Your task to perform on an android device: What's the news about the US president? Image 0: 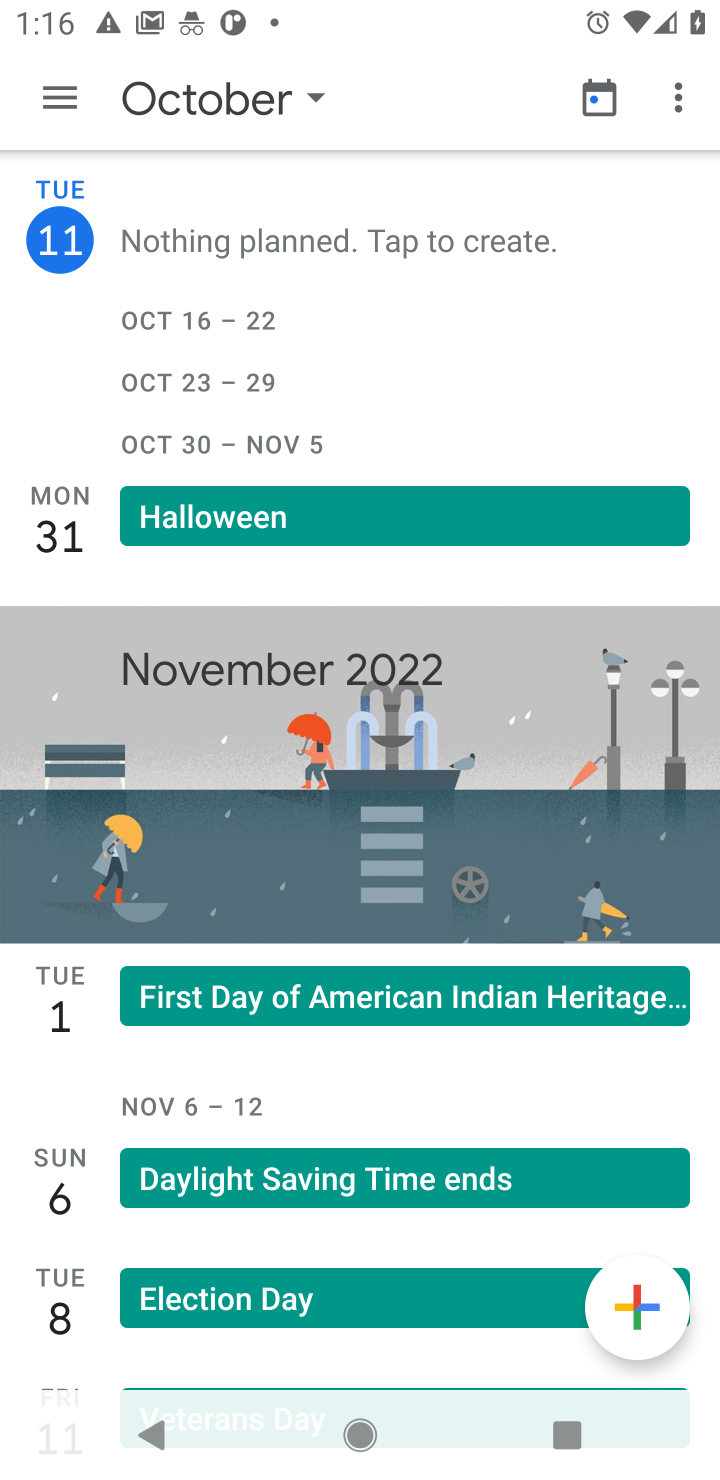
Step 0: press home button
Your task to perform on an android device: What's the news about the US president? Image 1: 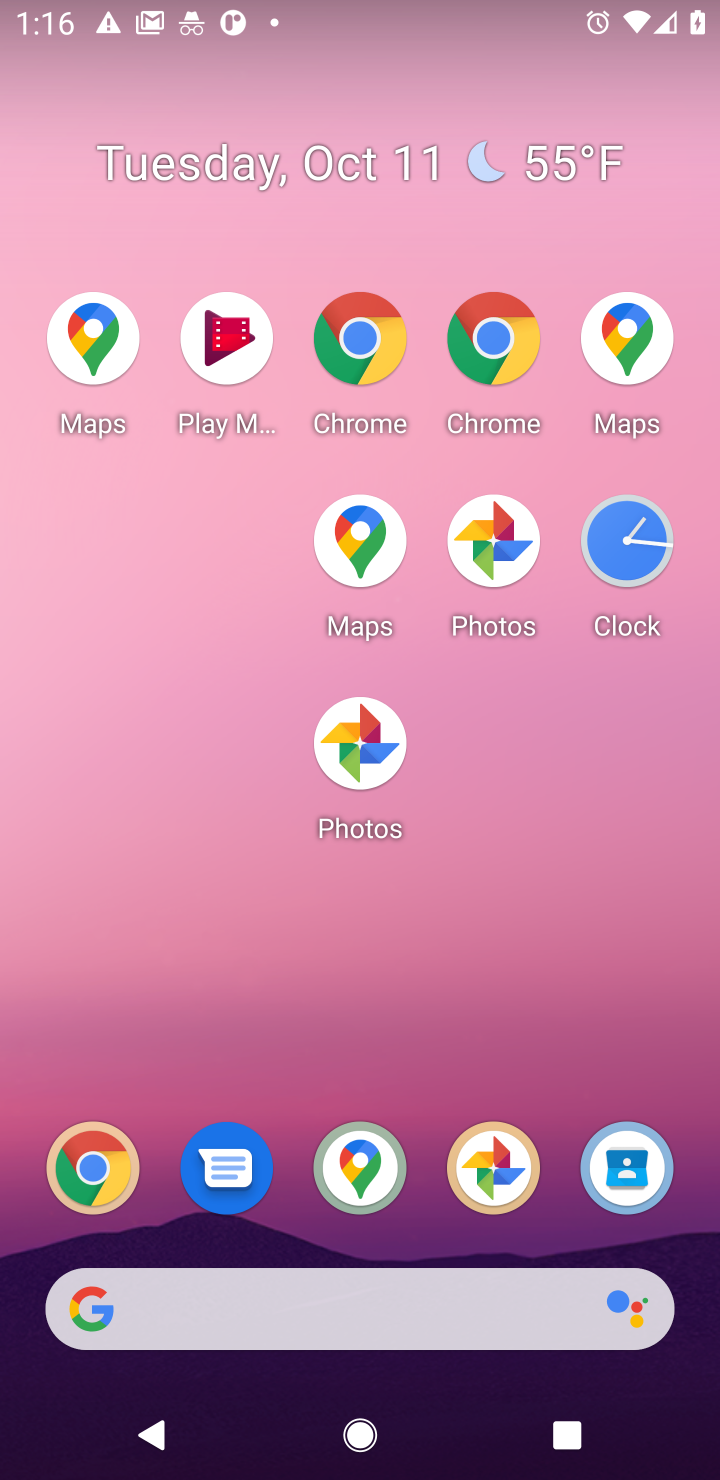
Step 1: drag from (301, 1114) to (680, 52)
Your task to perform on an android device: What's the news about the US president? Image 2: 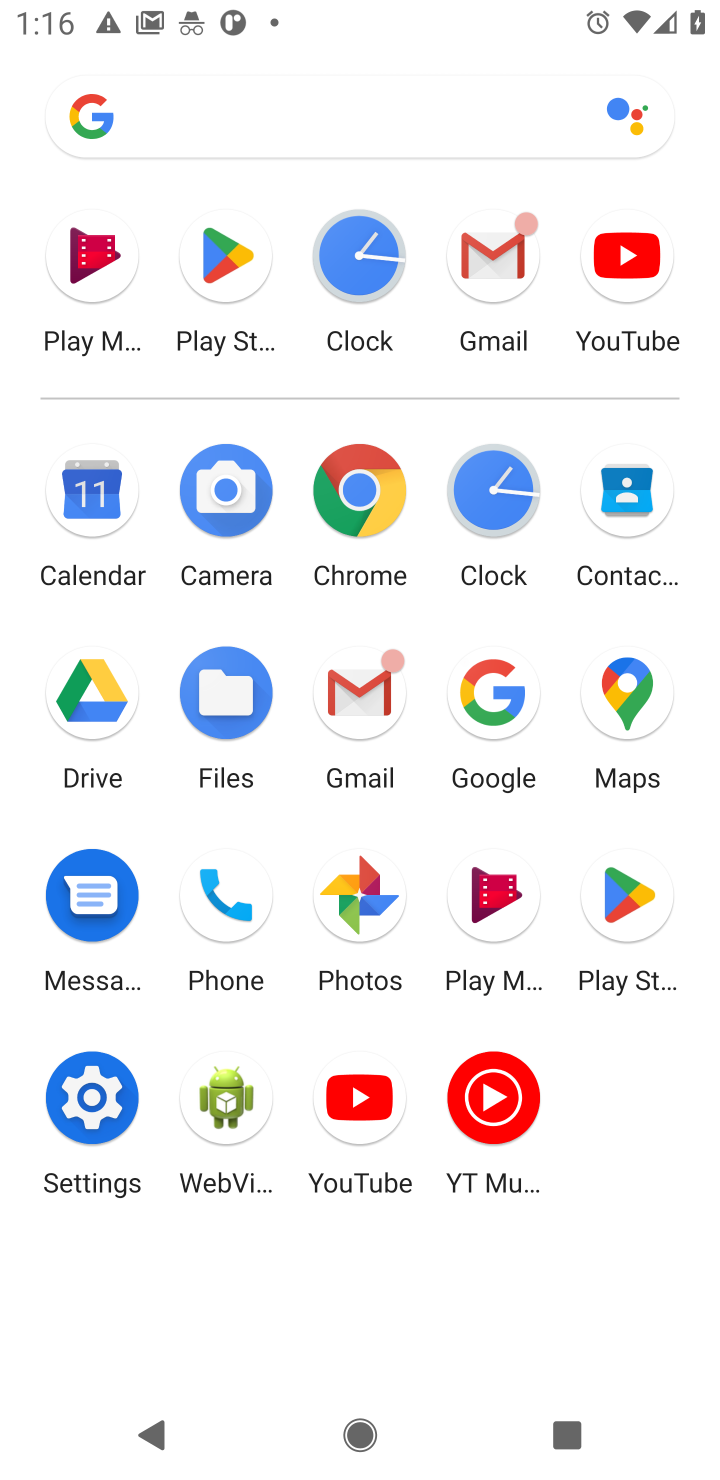
Step 2: click (520, 722)
Your task to perform on an android device: What's the news about the US president? Image 3: 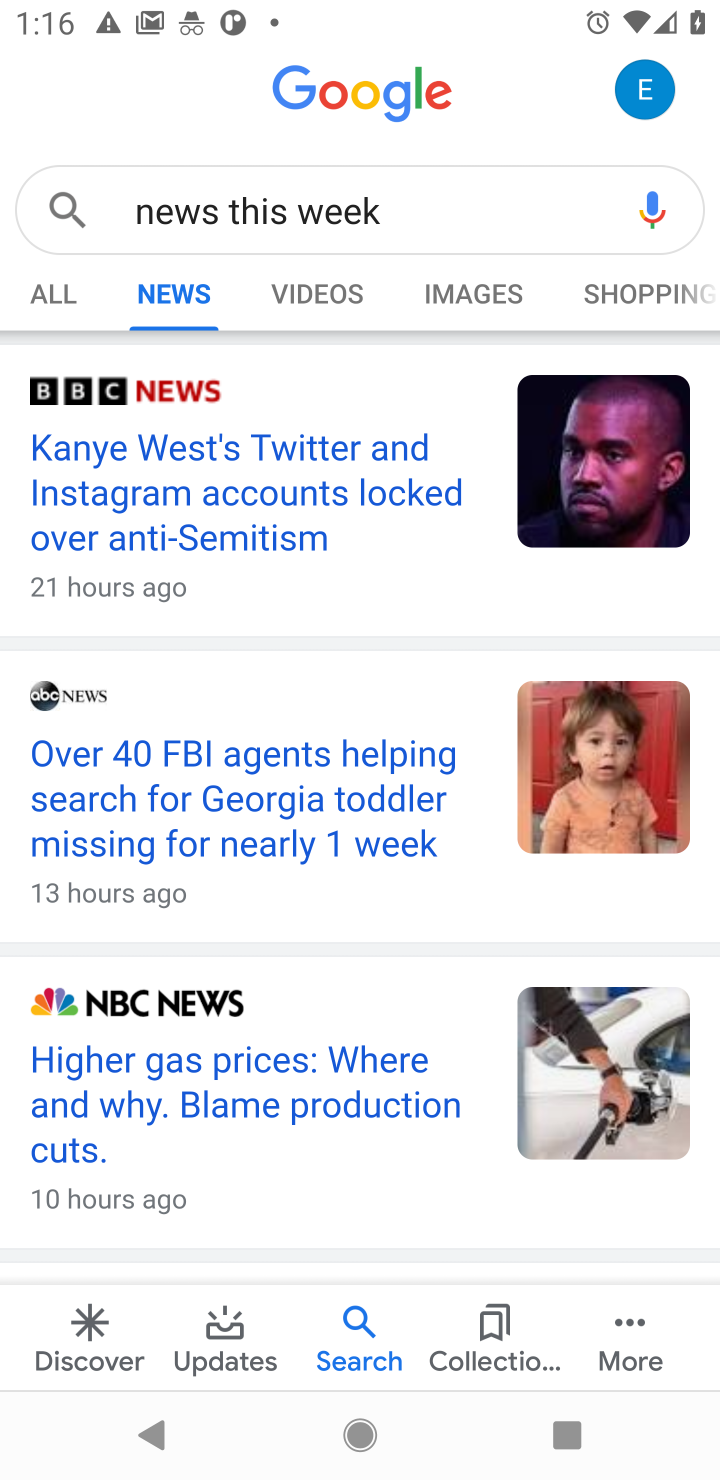
Step 3: click (526, 220)
Your task to perform on an android device: What's the news about the US president? Image 4: 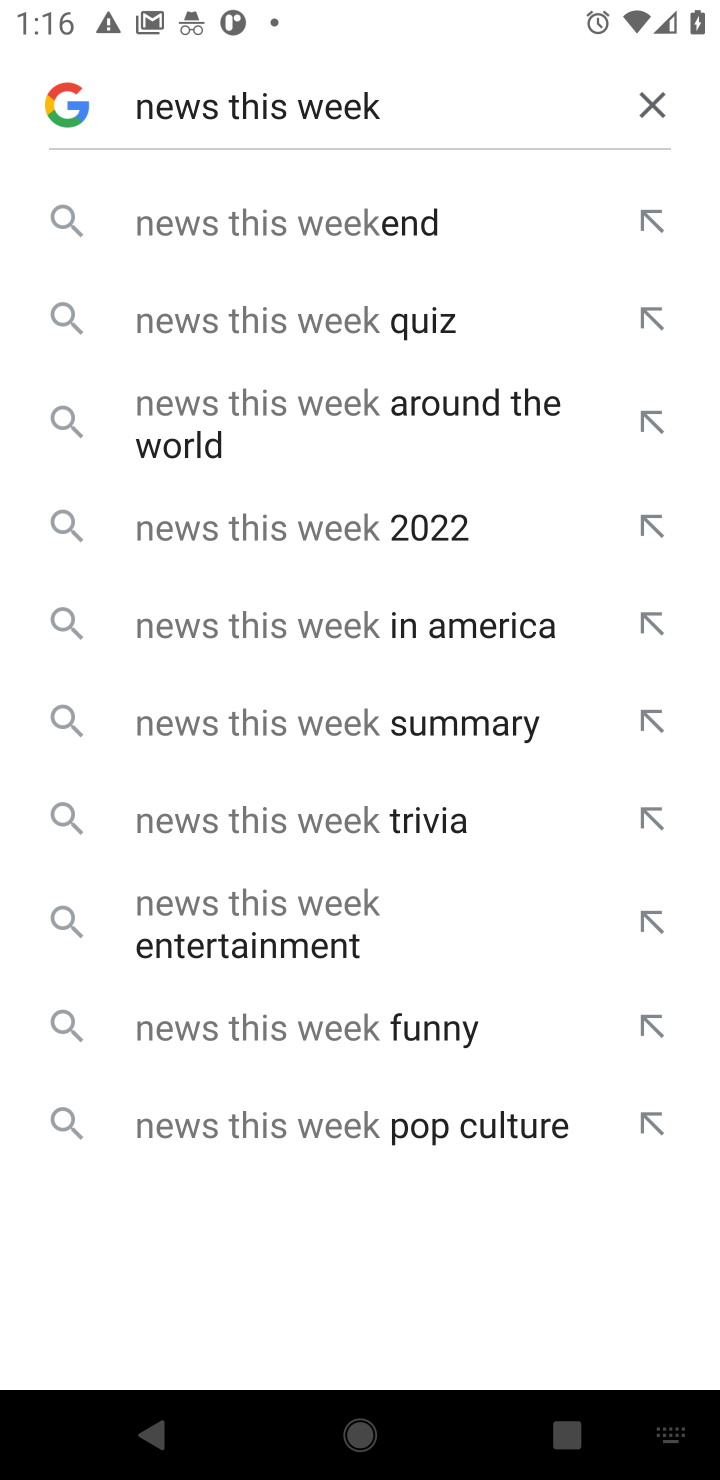
Step 4: click (660, 100)
Your task to perform on an android device: What's the news about the US president? Image 5: 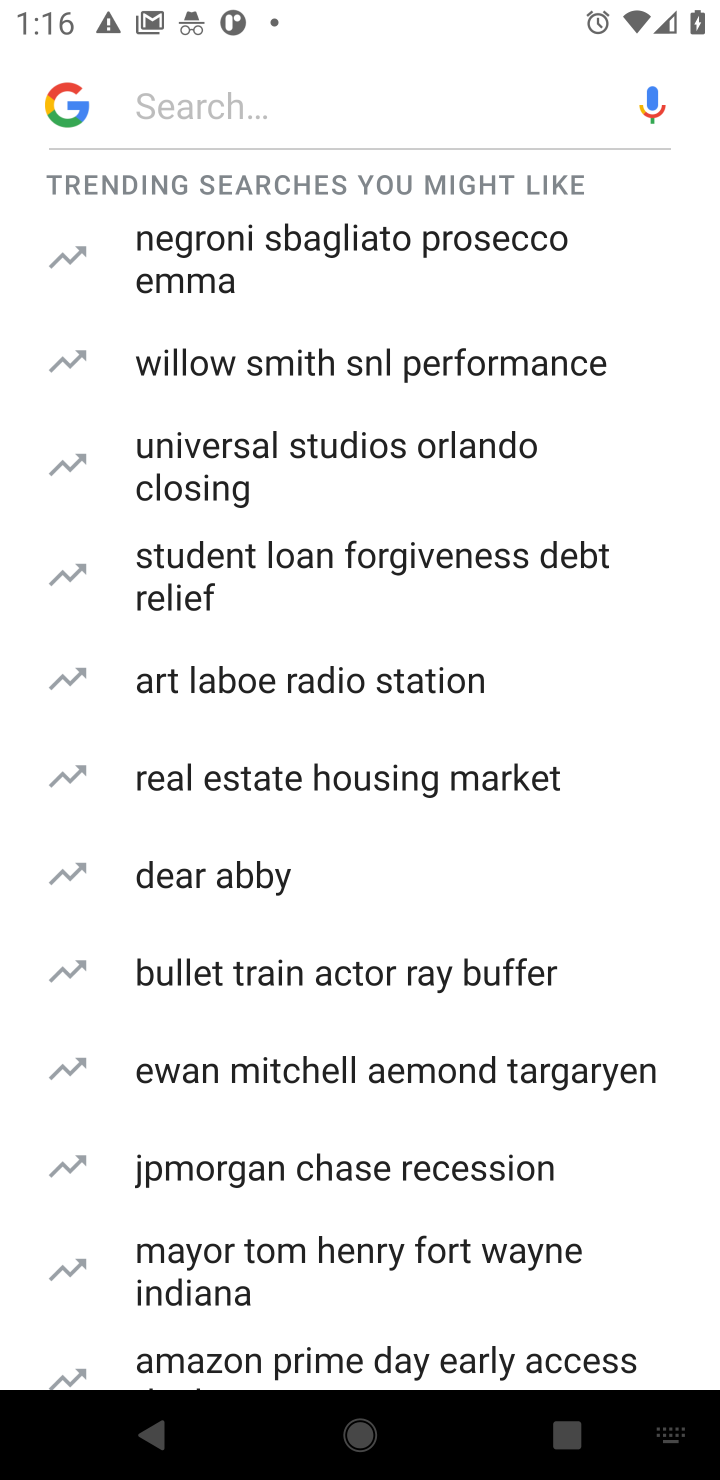
Step 5: type "news about the US president"
Your task to perform on an android device: What's the news about the US president? Image 6: 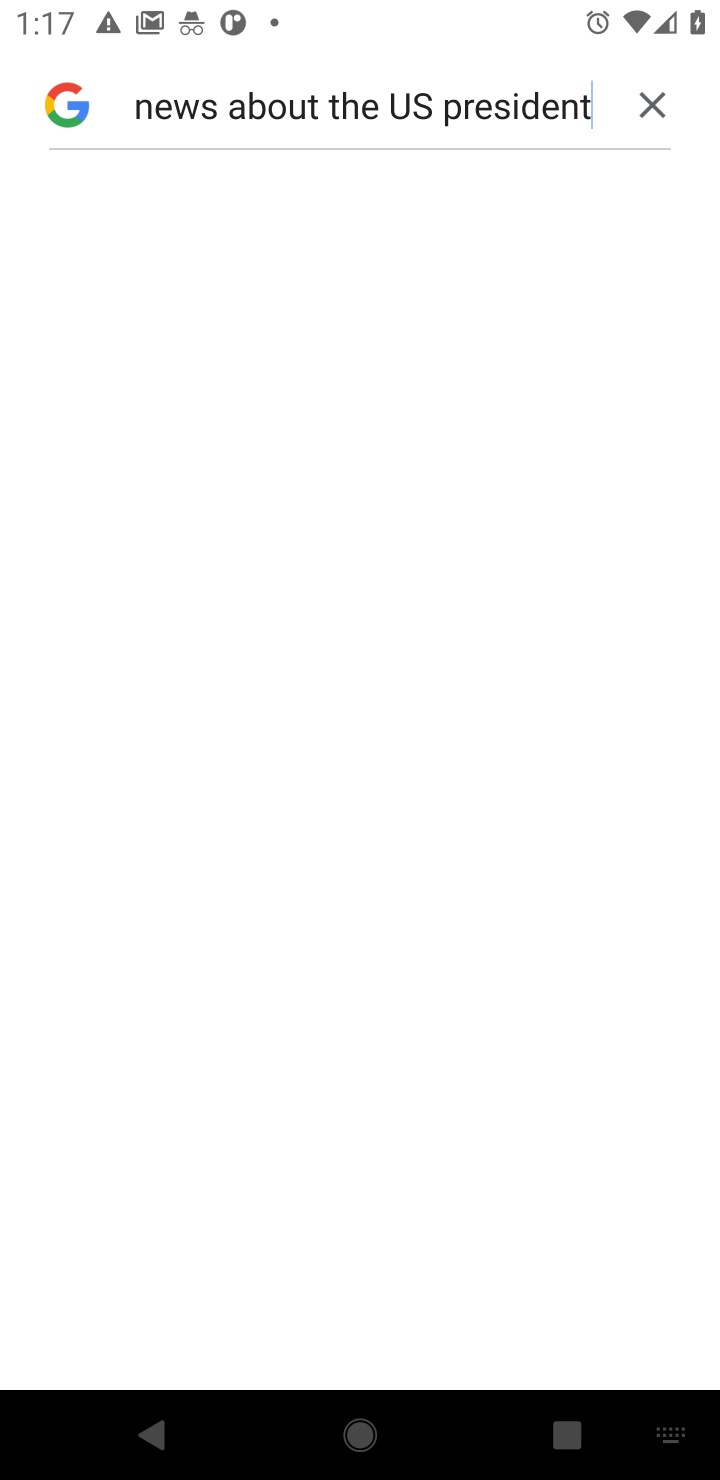
Step 6: task complete